Your task to perform on an android device: Open eBay Image 0: 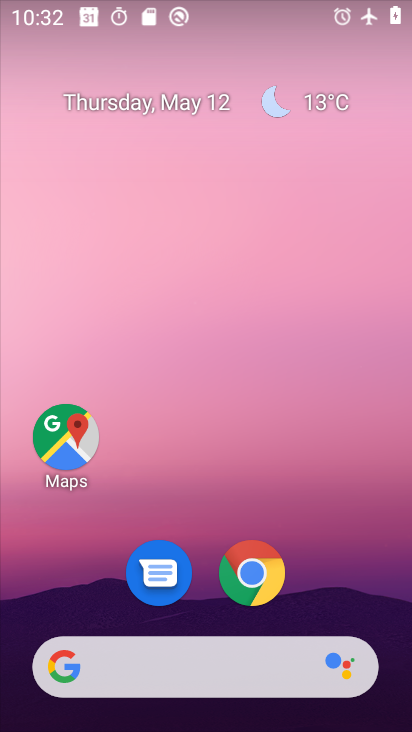
Step 0: click (240, 571)
Your task to perform on an android device: Open eBay Image 1: 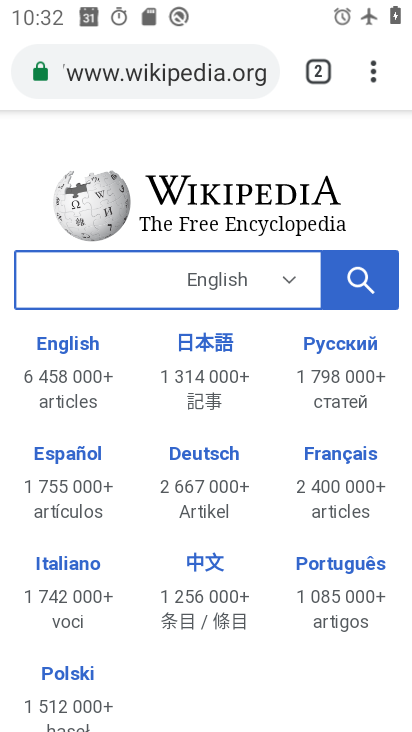
Step 1: click (327, 67)
Your task to perform on an android device: Open eBay Image 2: 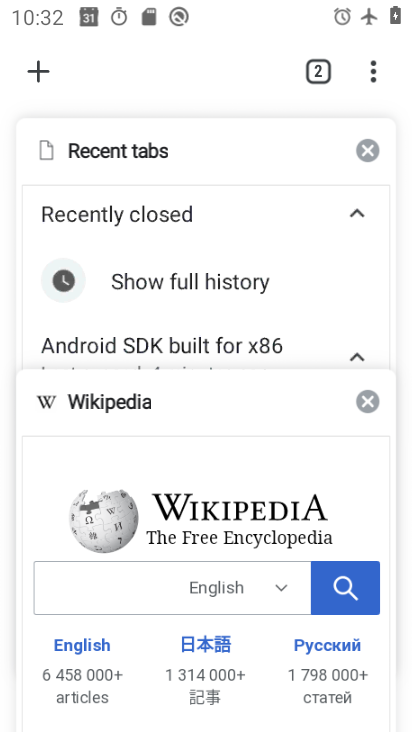
Step 2: click (363, 404)
Your task to perform on an android device: Open eBay Image 3: 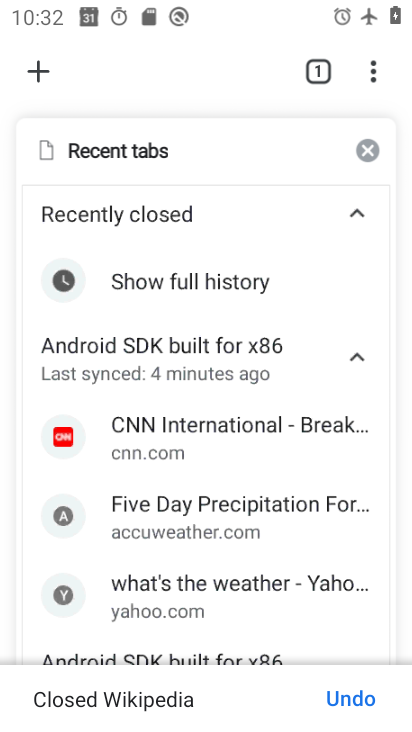
Step 3: click (365, 148)
Your task to perform on an android device: Open eBay Image 4: 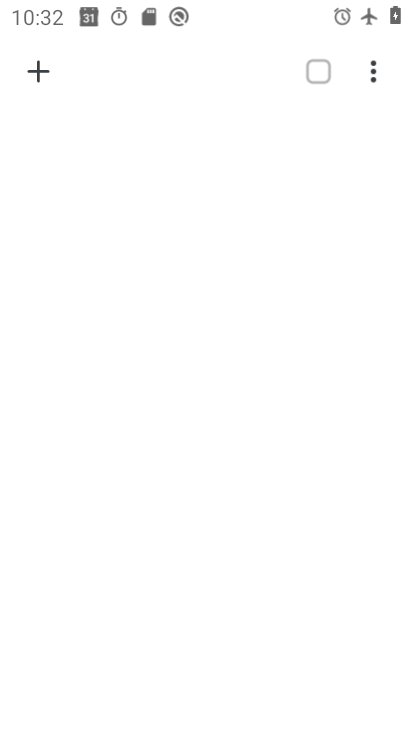
Step 4: click (373, 65)
Your task to perform on an android device: Open eBay Image 5: 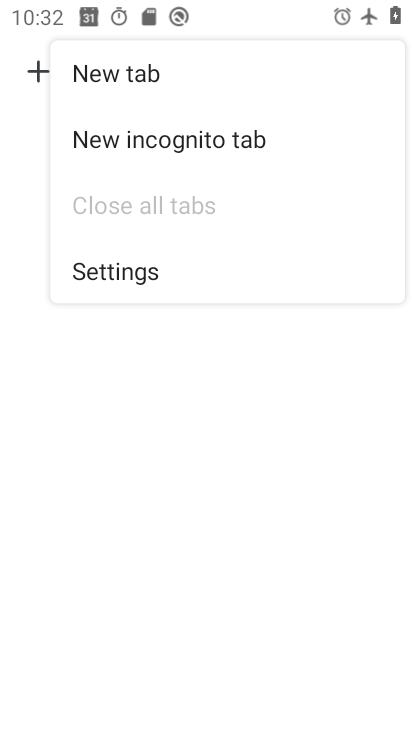
Step 5: click (126, 75)
Your task to perform on an android device: Open eBay Image 6: 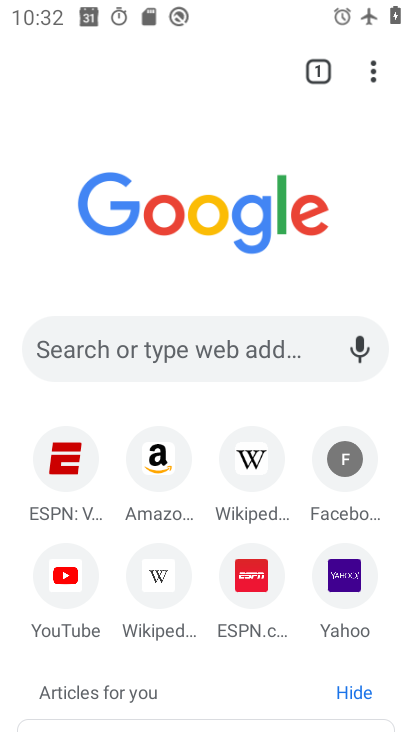
Step 6: click (166, 353)
Your task to perform on an android device: Open eBay Image 7: 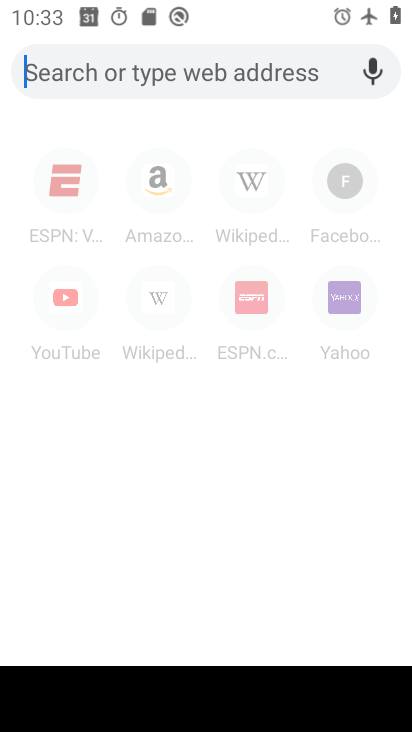
Step 7: type "eBay"
Your task to perform on an android device: Open eBay Image 8: 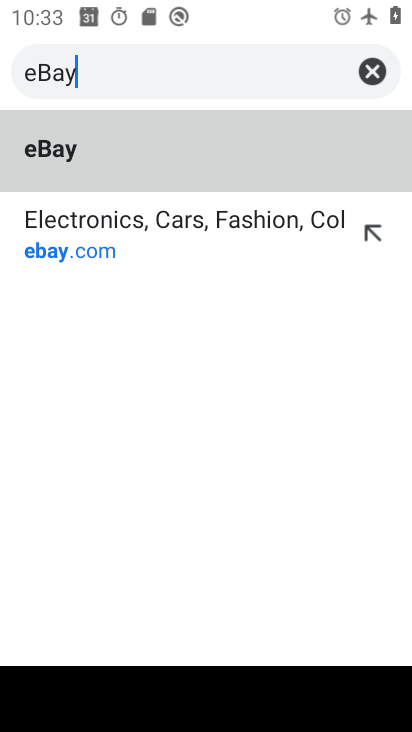
Step 8: click (65, 157)
Your task to perform on an android device: Open eBay Image 9: 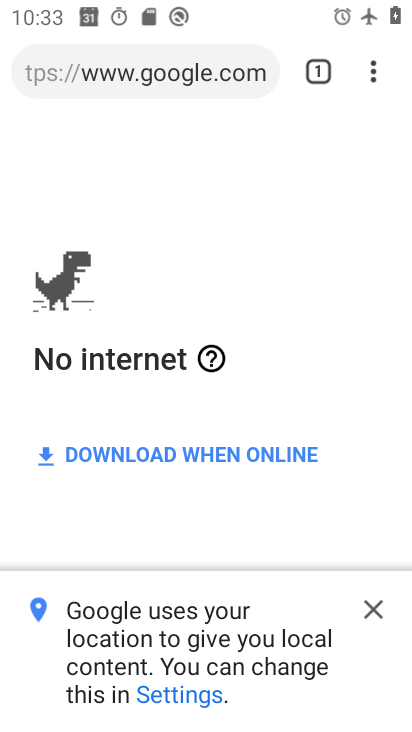
Step 9: task complete